Your task to perform on an android device: Open the Play Movies app and select the watchlist tab. Image 0: 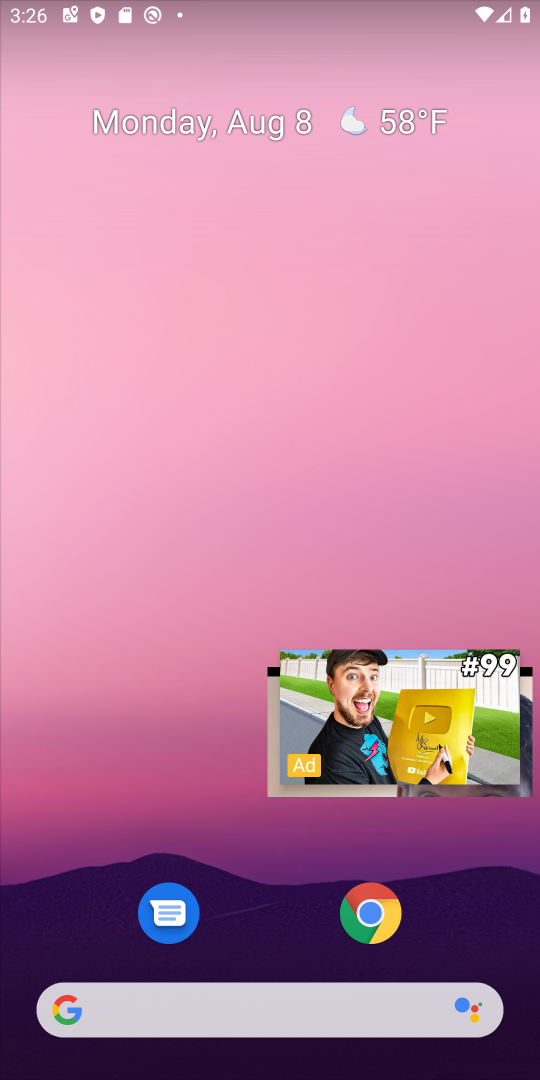
Step 0: press home button
Your task to perform on an android device: Open the Play Movies app and select the watchlist tab. Image 1: 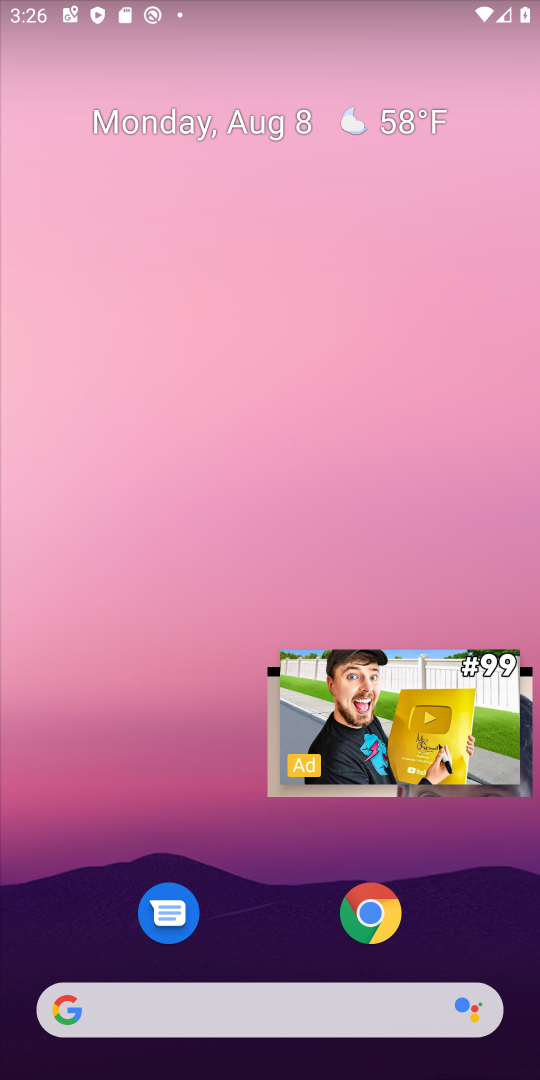
Step 1: drag from (79, 907) to (183, 207)
Your task to perform on an android device: Open the Play Movies app and select the watchlist tab. Image 2: 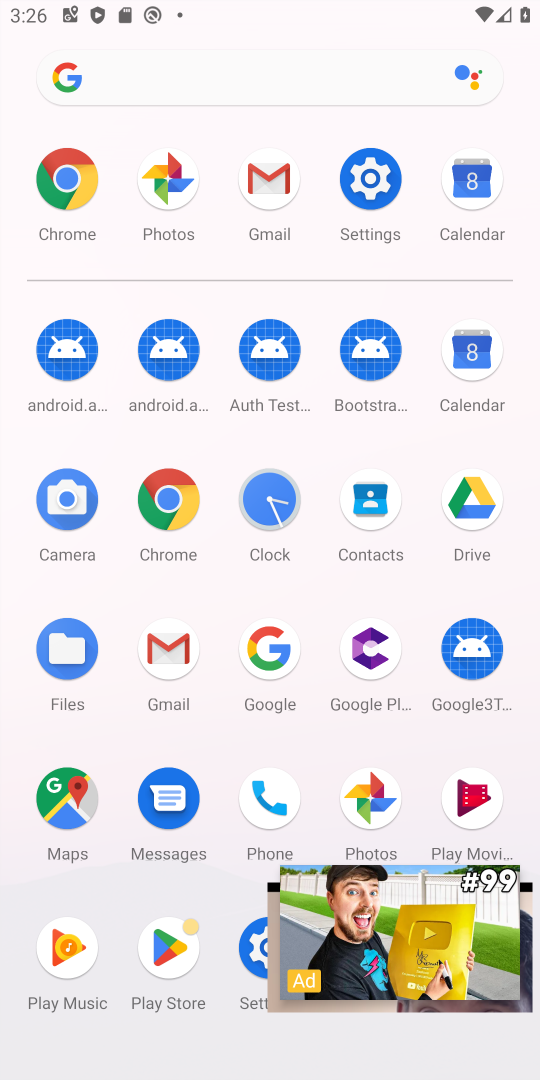
Step 2: click (466, 800)
Your task to perform on an android device: Open the Play Movies app and select the watchlist tab. Image 3: 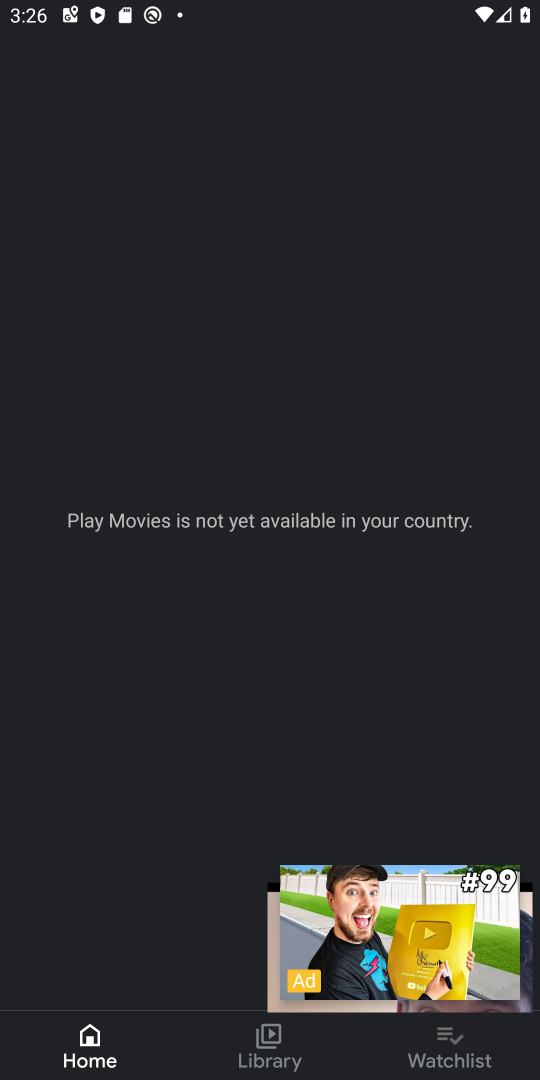
Step 3: click (469, 1052)
Your task to perform on an android device: Open the Play Movies app and select the watchlist tab. Image 4: 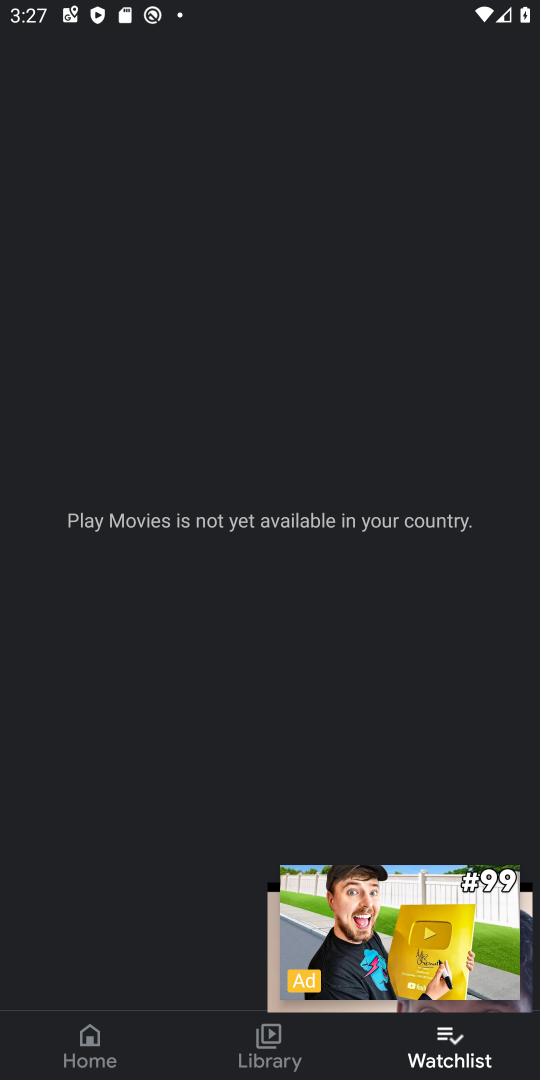
Step 4: task complete